Your task to perform on an android device: empty trash in the gmail app Image 0: 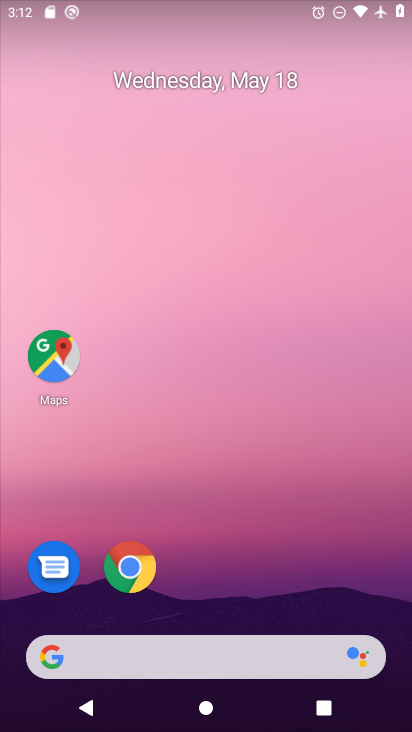
Step 0: drag from (244, 576) to (264, 151)
Your task to perform on an android device: empty trash in the gmail app Image 1: 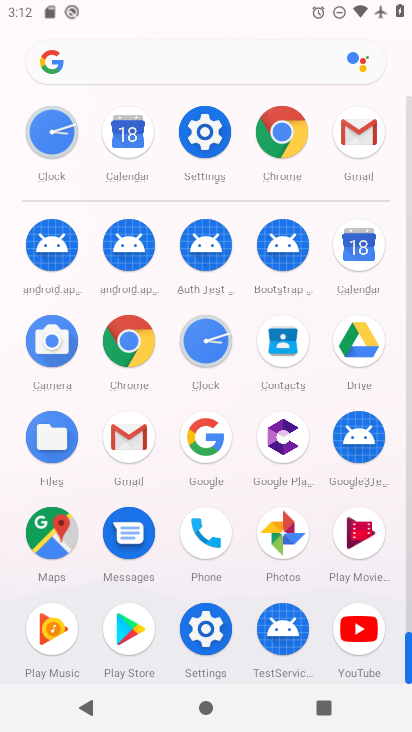
Step 1: click (366, 135)
Your task to perform on an android device: empty trash in the gmail app Image 2: 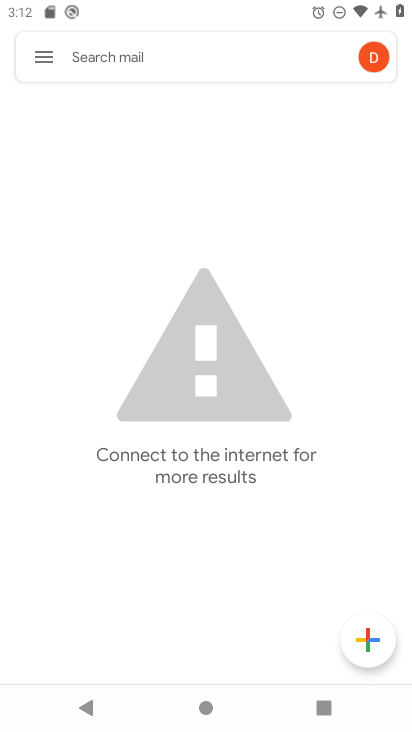
Step 2: click (42, 41)
Your task to perform on an android device: empty trash in the gmail app Image 3: 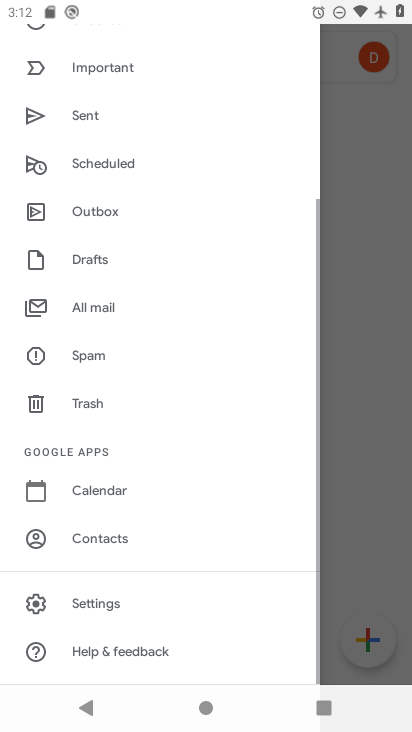
Step 3: click (103, 382)
Your task to perform on an android device: empty trash in the gmail app Image 4: 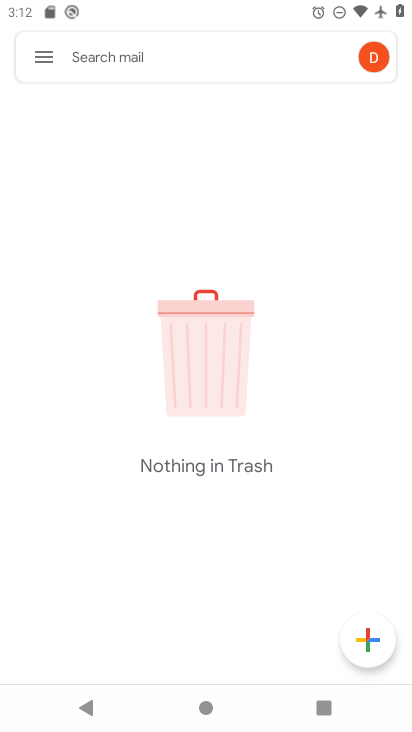
Step 4: task complete